Your task to perform on an android device: Search for Italian restaurants on Maps Image 0: 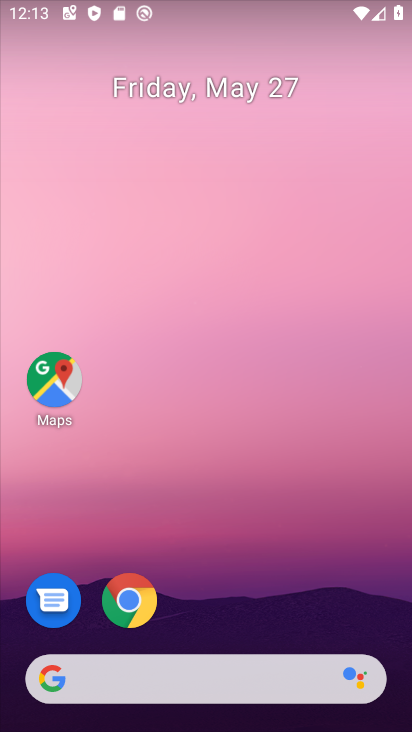
Step 0: drag from (273, 518) to (255, 4)
Your task to perform on an android device: Search for Italian restaurants on Maps Image 1: 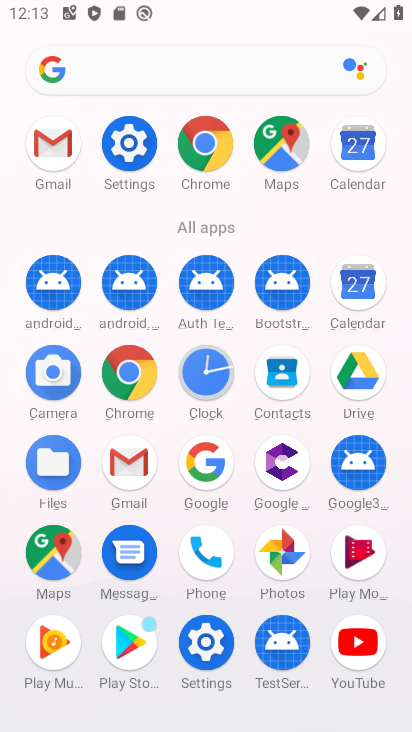
Step 1: drag from (15, 614) to (23, 292)
Your task to perform on an android device: Search for Italian restaurants on Maps Image 2: 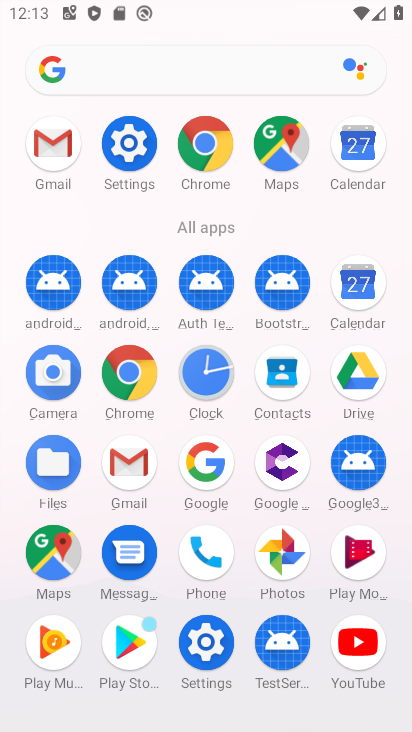
Step 2: click (53, 549)
Your task to perform on an android device: Search for Italian restaurants on Maps Image 3: 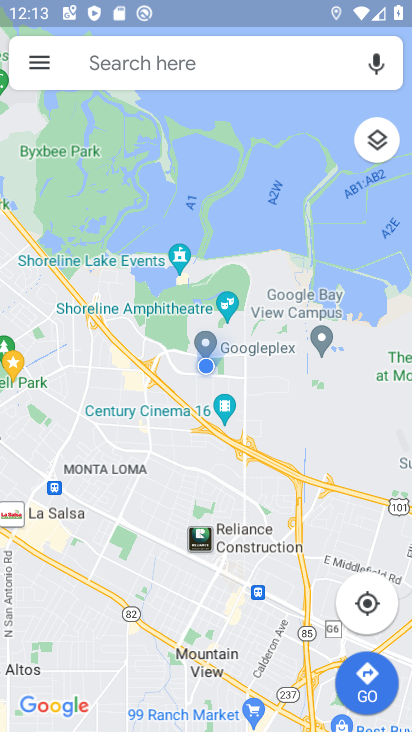
Step 3: click (240, 53)
Your task to perform on an android device: Search for Italian restaurants on Maps Image 4: 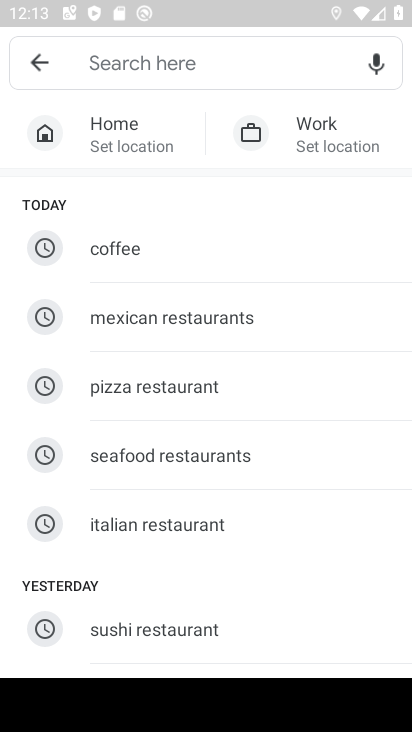
Step 4: click (134, 518)
Your task to perform on an android device: Search for Italian restaurants on Maps Image 5: 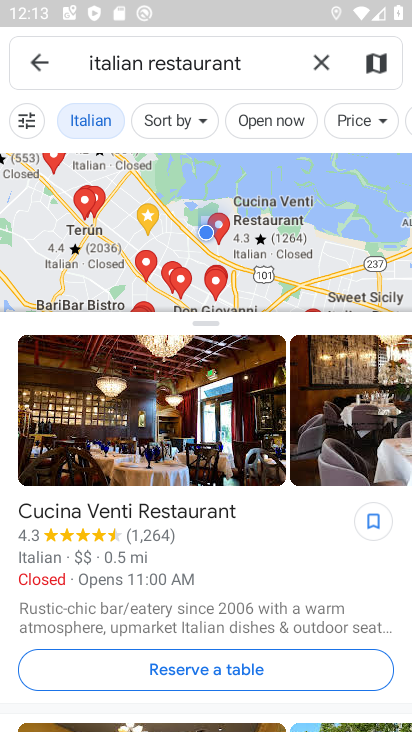
Step 5: task complete